Your task to perform on an android device: Open Google Maps Image 0: 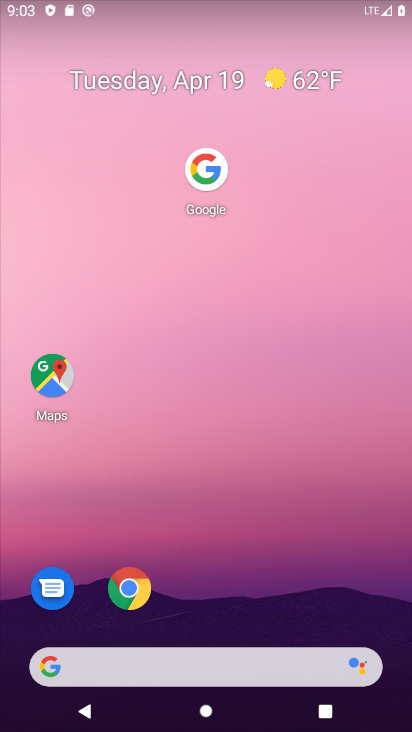
Step 0: click (53, 381)
Your task to perform on an android device: Open Google Maps Image 1: 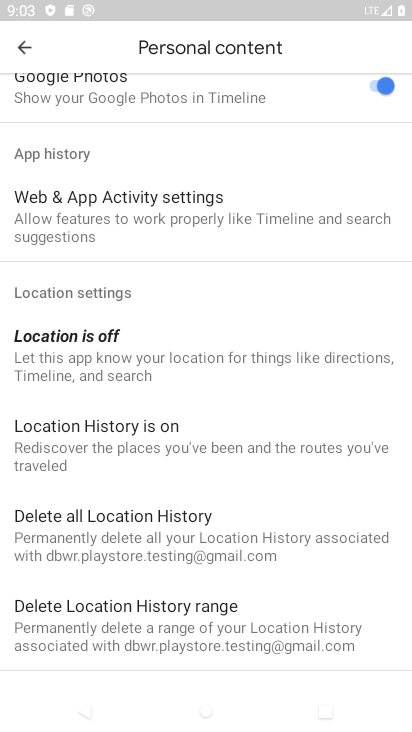
Step 1: click (25, 48)
Your task to perform on an android device: Open Google Maps Image 2: 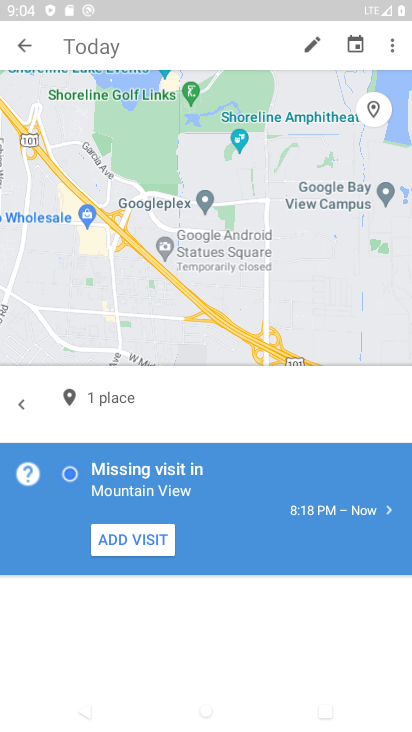
Step 2: click (27, 42)
Your task to perform on an android device: Open Google Maps Image 3: 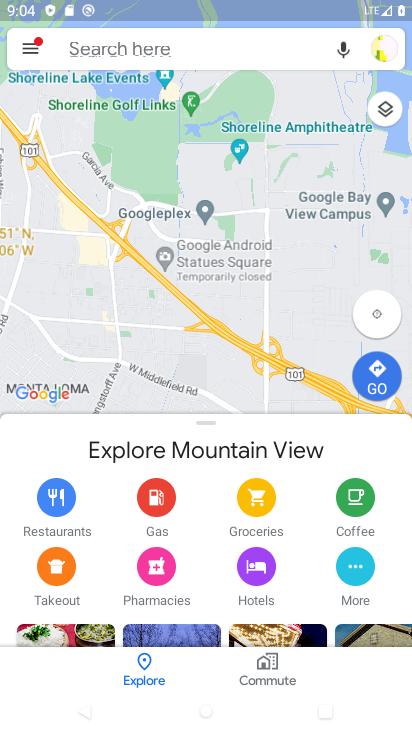
Step 3: task complete